Your task to perform on an android device: Is it going to rain today? Image 0: 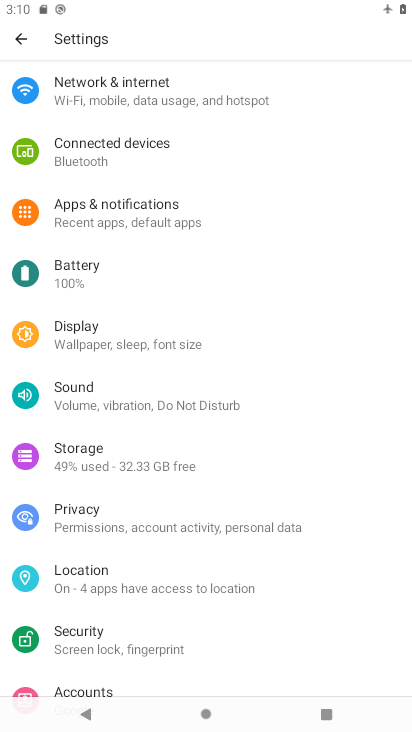
Step 0: press home button
Your task to perform on an android device: Is it going to rain today? Image 1: 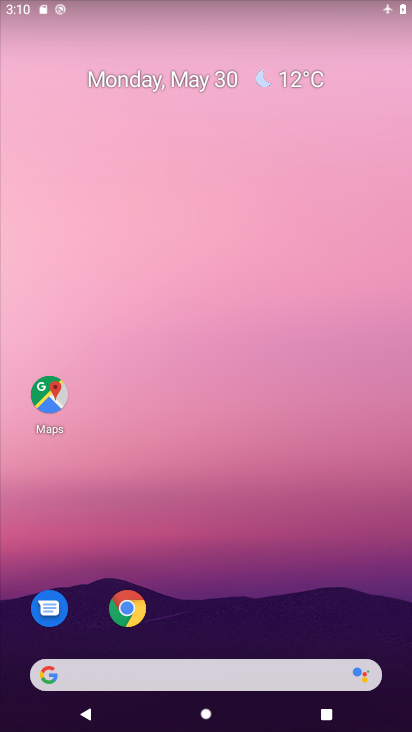
Step 1: click (304, 79)
Your task to perform on an android device: Is it going to rain today? Image 2: 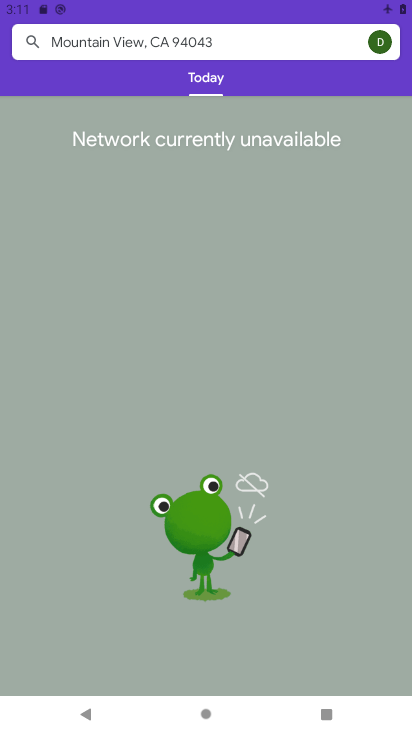
Step 2: task complete